Your task to perform on an android device: install app "ColorNote Notepad Notes" Image 0: 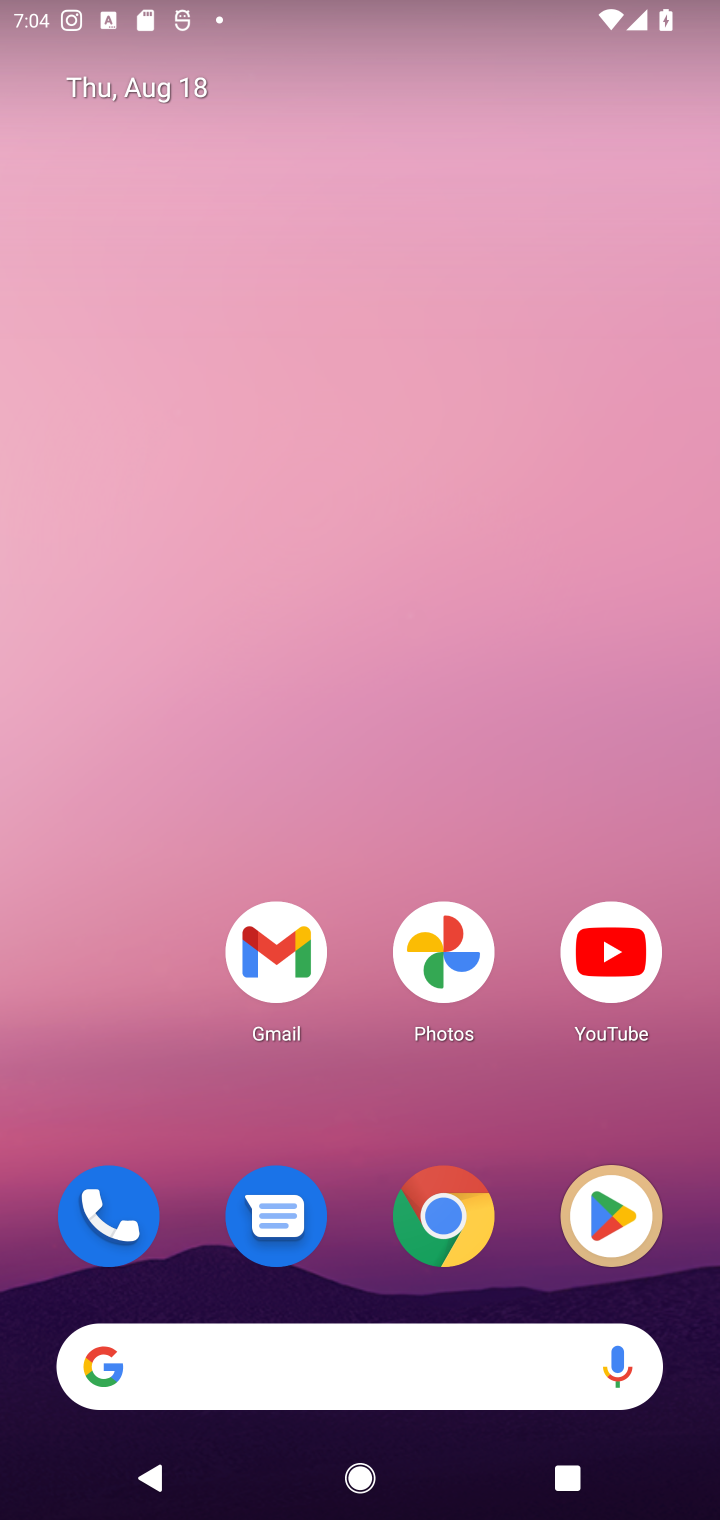
Step 0: click (588, 1226)
Your task to perform on an android device: install app "ColorNote Notepad Notes" Image 1: 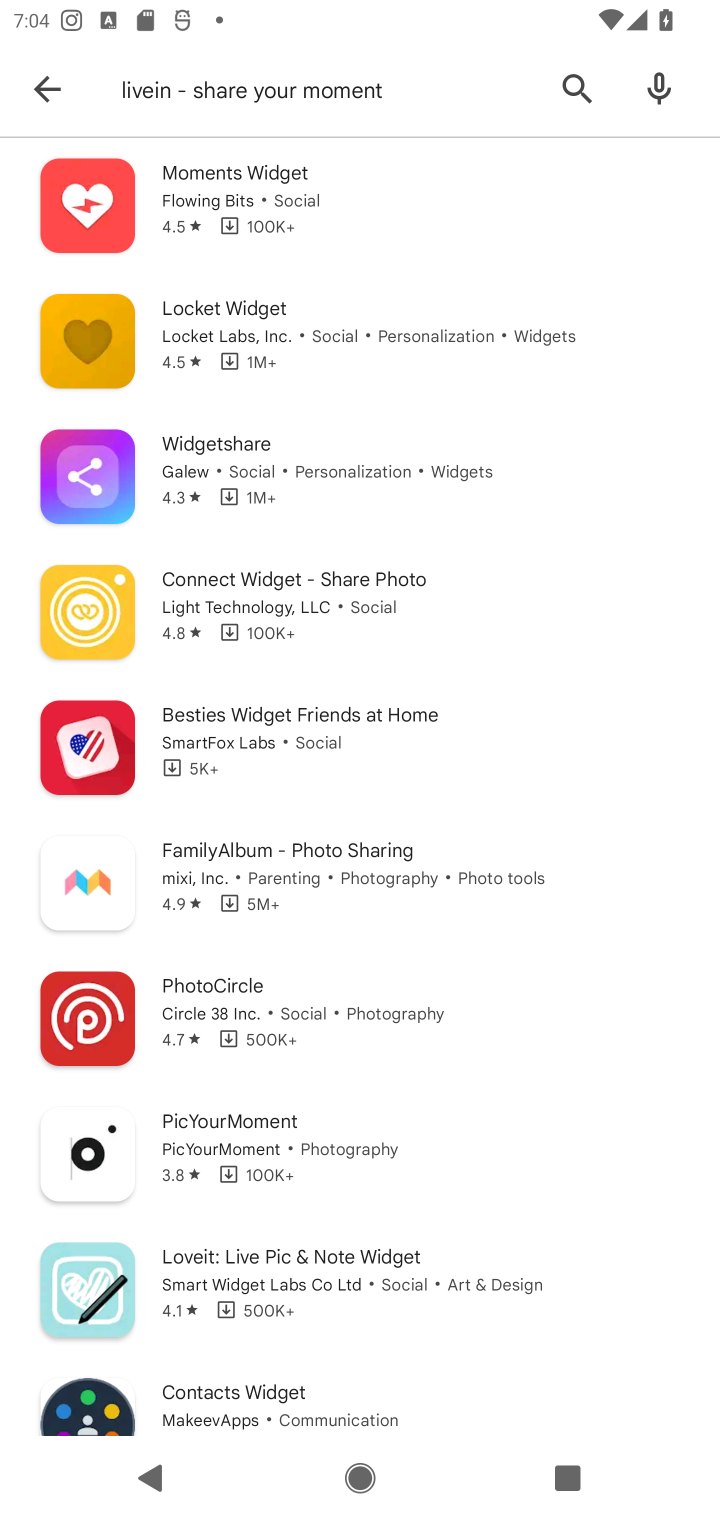
Step 1: click (568, 87)
Your task to perform on an android device: install app "ColorNote Notepad Notes" Image 2: 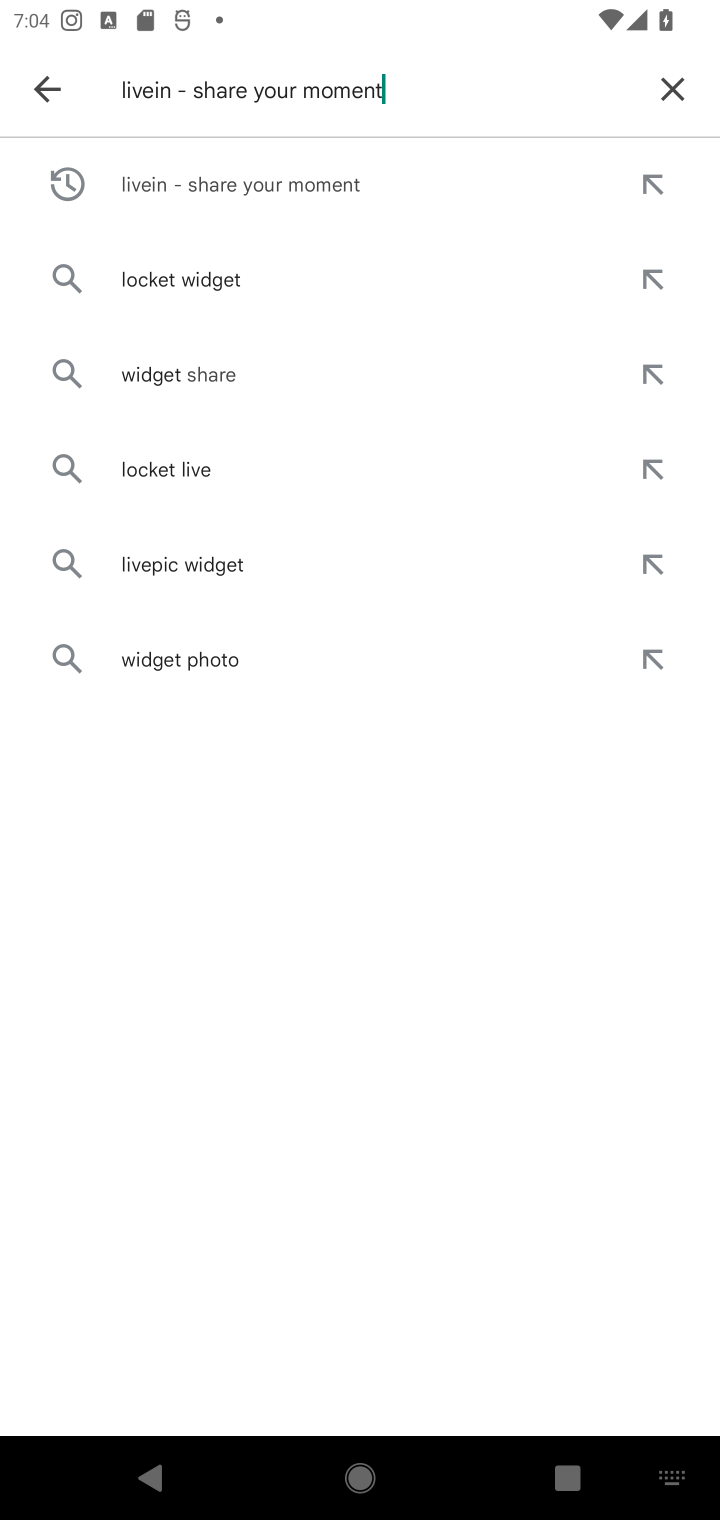
Step 2: click (673, 102)
Your task to perform on an android device: install app "ColorNote Notepad Notes" Image 3: 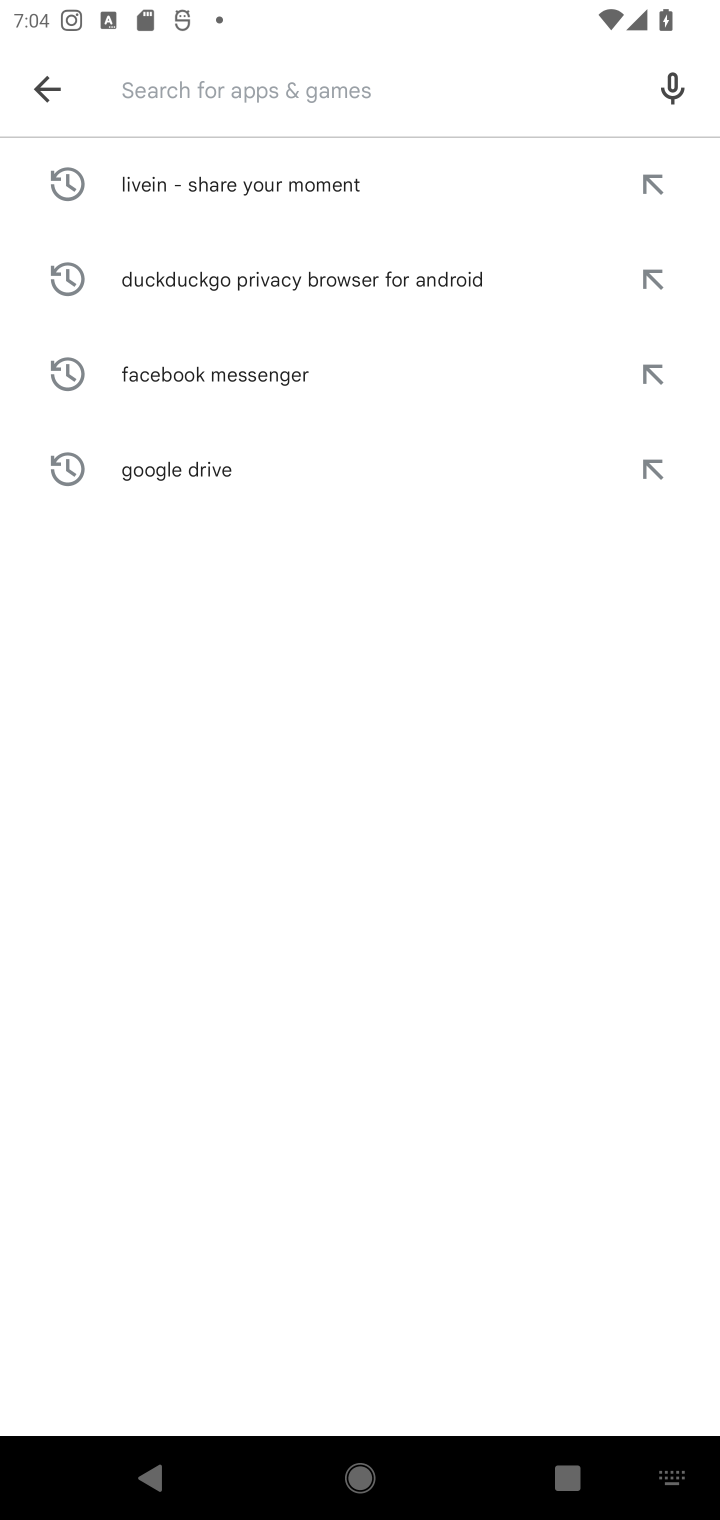
Step 3: type "ColorNote Notepad Notes"
Your task to perform on an android device: install app "ColorNote Notepad Notes" Image 4: 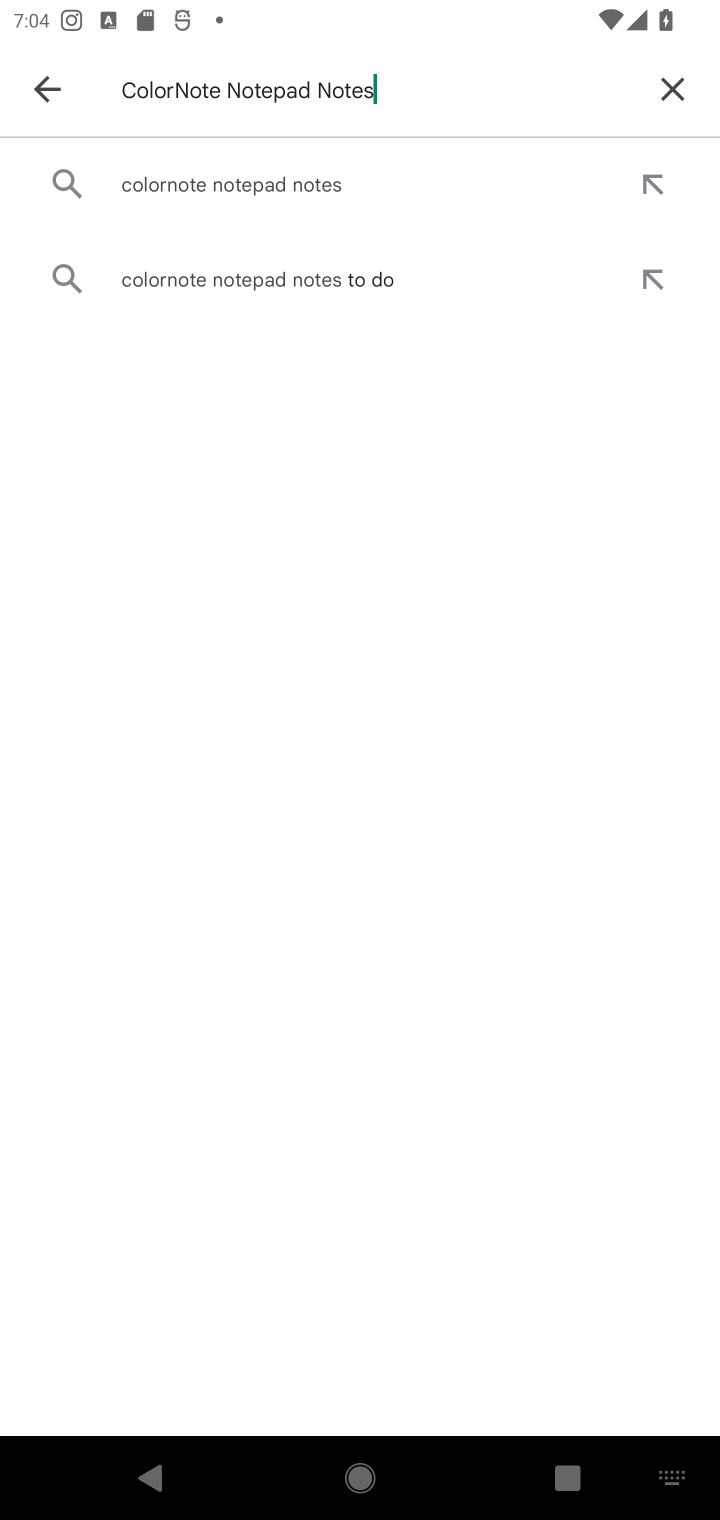
Step 4: click (291, 187)
Your task to perform on an android device: install app "ColorNote Notepad Notes" Image 5: 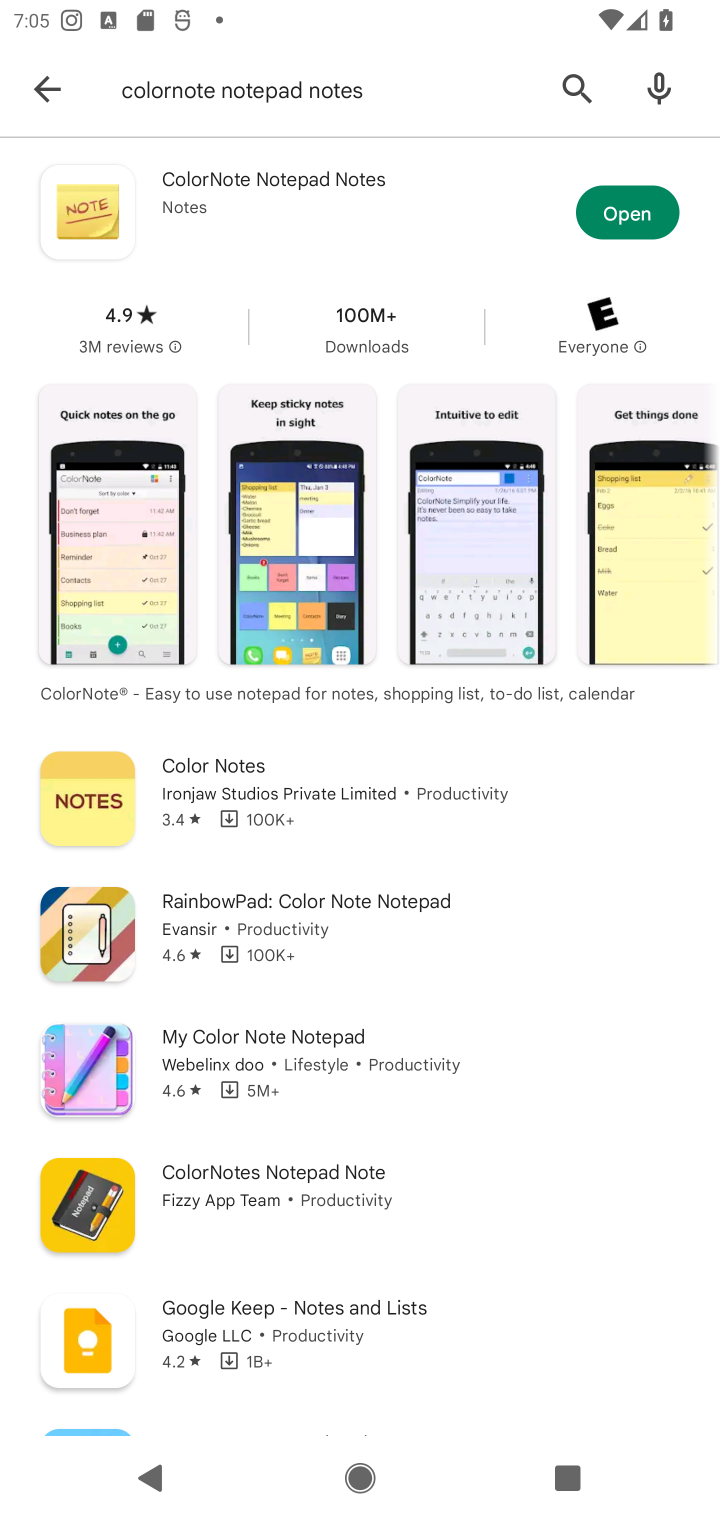
Step 5: task complete